Your task to perform on an android device: turn off wifi Image 0: 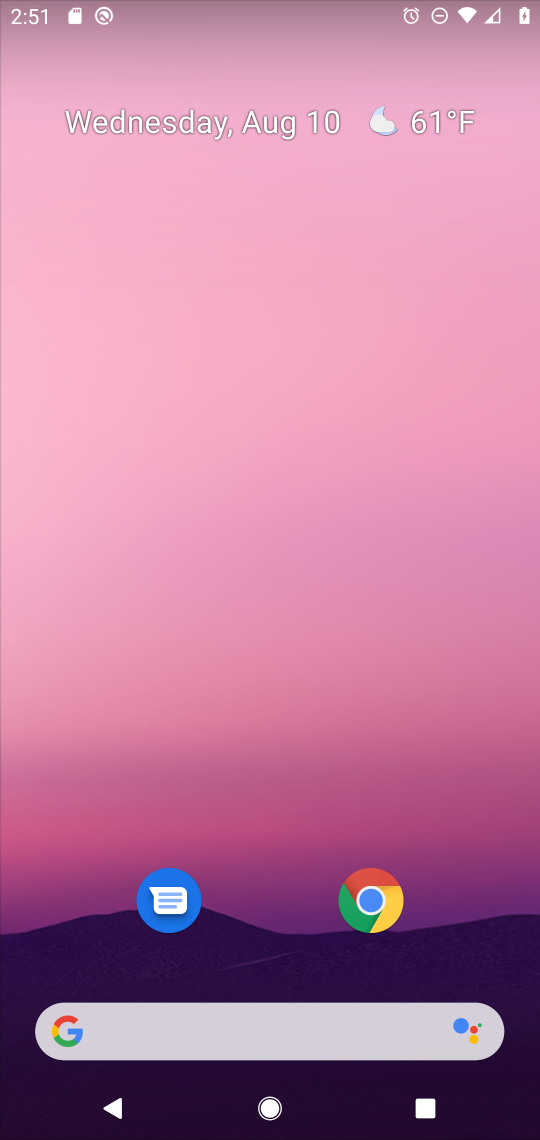
Step 0: drag from (276, 809) to (311, 0)
Your task to perform on an android device: turn off wifi Image 1: 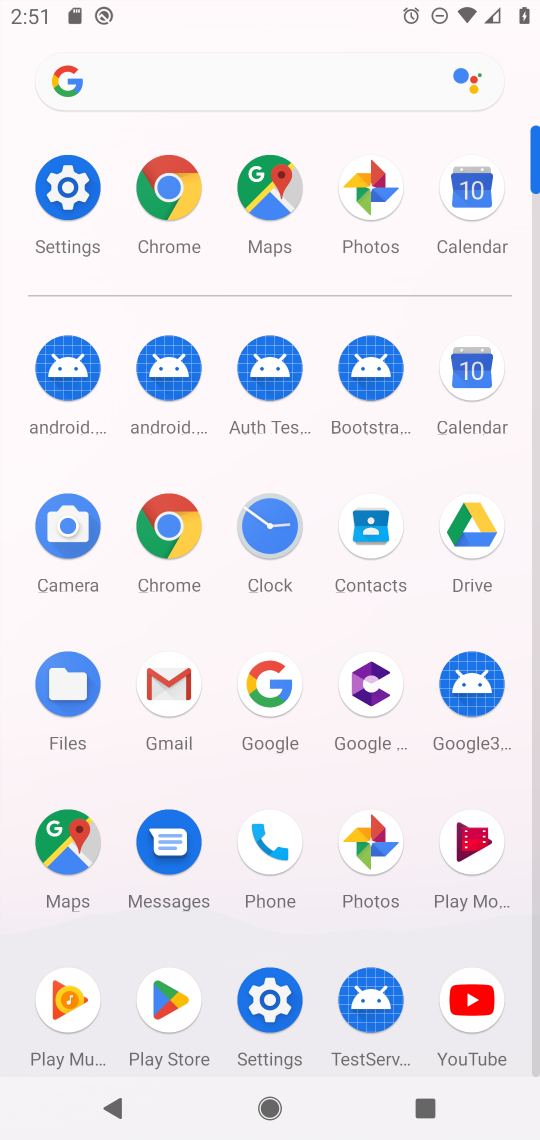
Step 1: click (76, 189)
Your task to perform on an android device: turn off wifi Image 2: 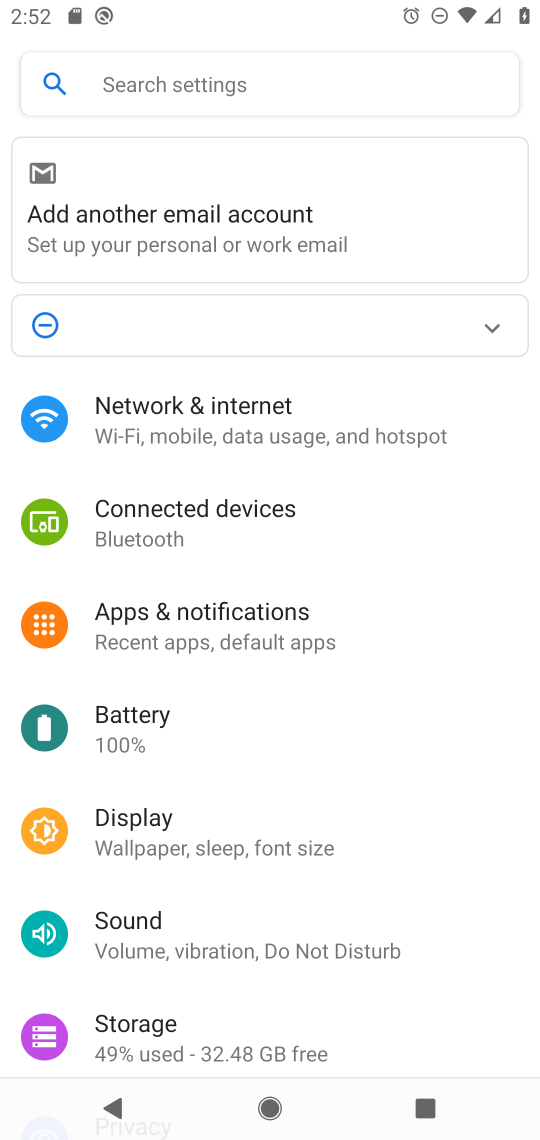
Step 2: click (171, 419)
Your task to perform on an android device: turn off wifi Image 3: 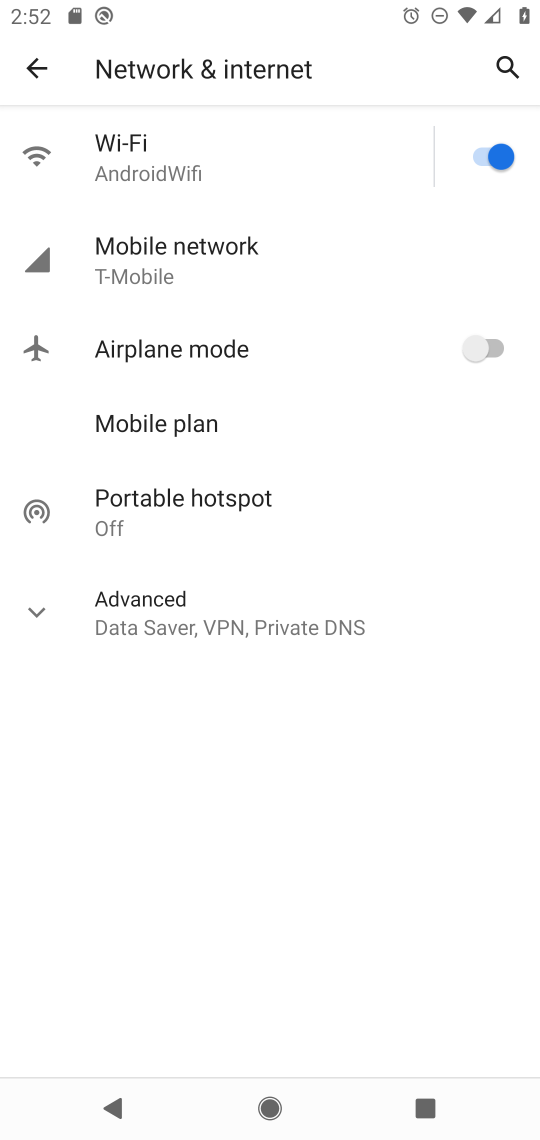
Step 3: click (485, 151)
Your task to perform on an android device: turn off wifi Image 4: 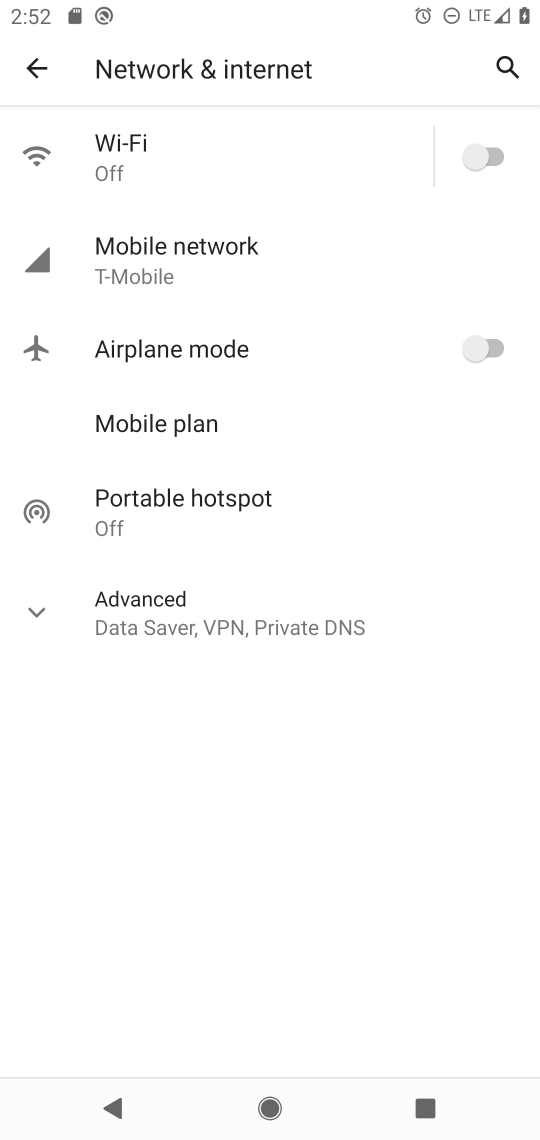
Step 4: task complete